Your task to perform on an android device: turn off sleep mode Image 0: 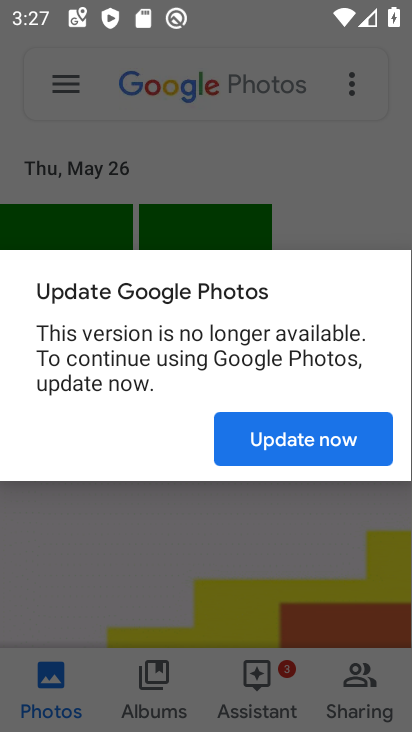
Step 0: press home button
Your task to perform on an android device: turn off sleep mode Image 1: 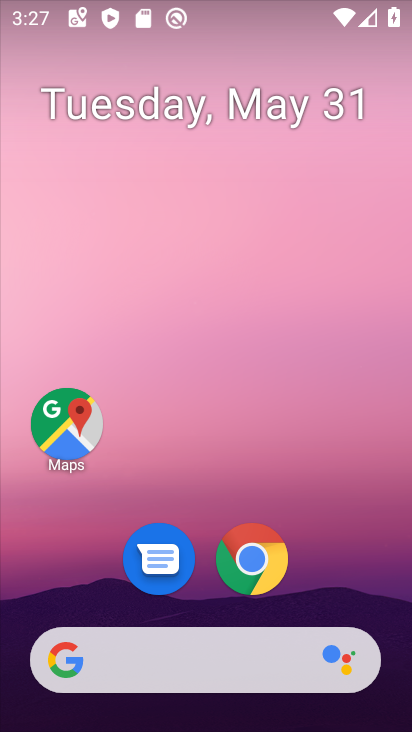
Step 1: drag from (233, 718) to (268, 0)
Your task to perform on an android device: turn off sleep mode Image 2: 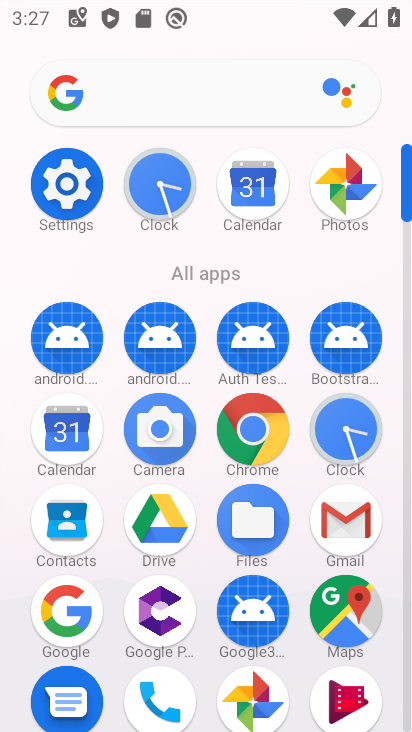
Step 2: click (60, 185)
Your task to perform on an android device: turn off sleep mode Image 3: 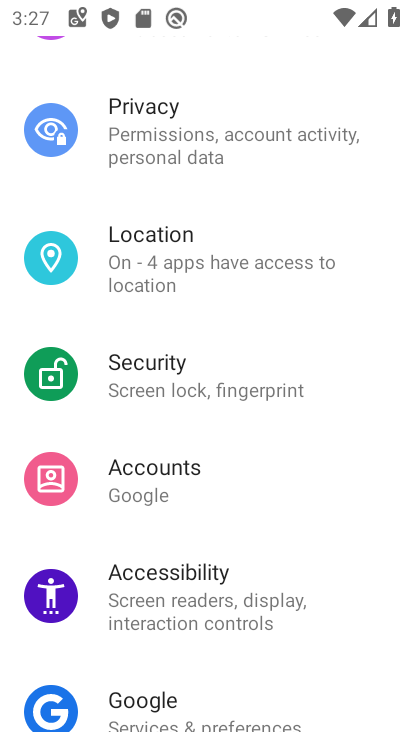
Step 3: task complete